Your task to perform on an android device: Open ESPN.com Image 0: 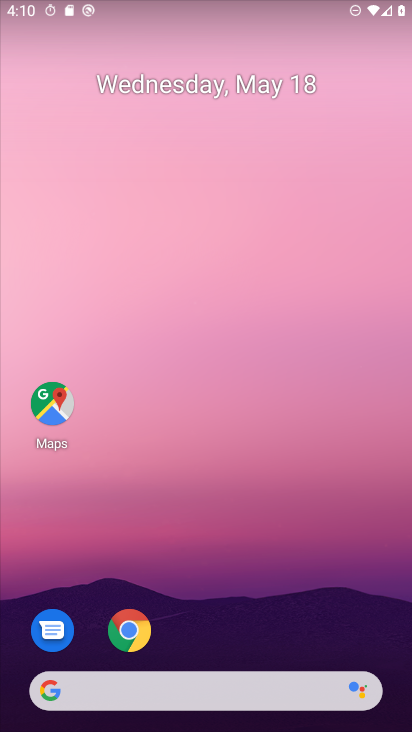
Step 0: press home button
Your task to perform on an android device: Open ESPN.com Image 1: 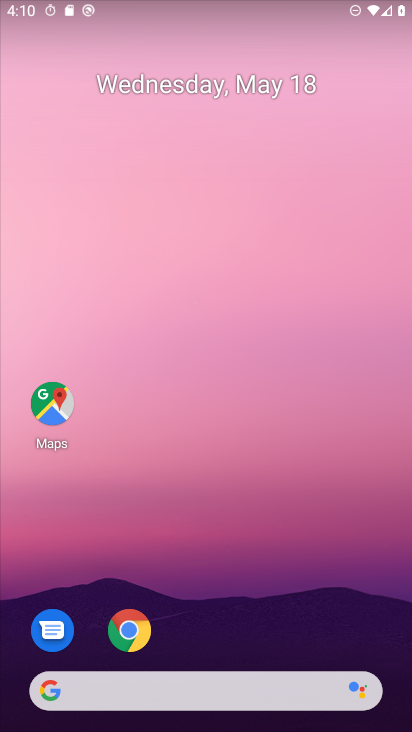
Step 1: click (121, 625)
Your task to perform on an android device: Open ESPN.com Image 2: 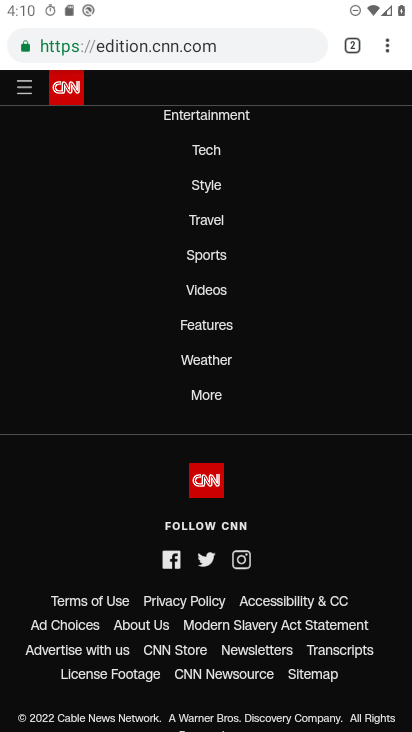
Step 2: click (351, 41)
Your task to perform on an android device: Open ESPN.com Image 3: 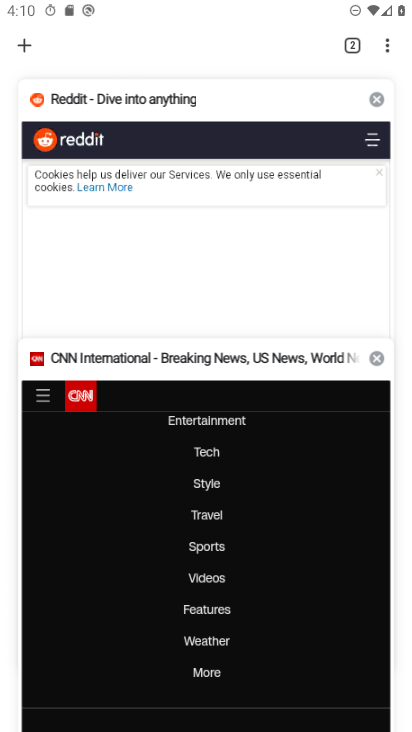
Step 3: click (379, 93)
Your task to perform on an android device: Open ESPN.com Image 4: 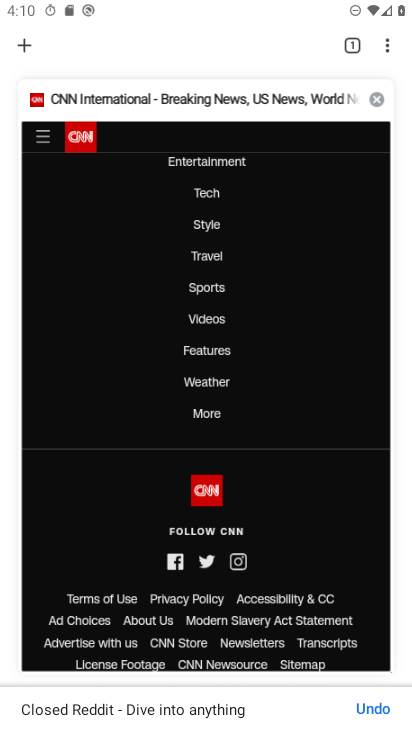
Step 4: click (379, 93)
Your task to perform on an android device: Open ESPN.com Image 5: 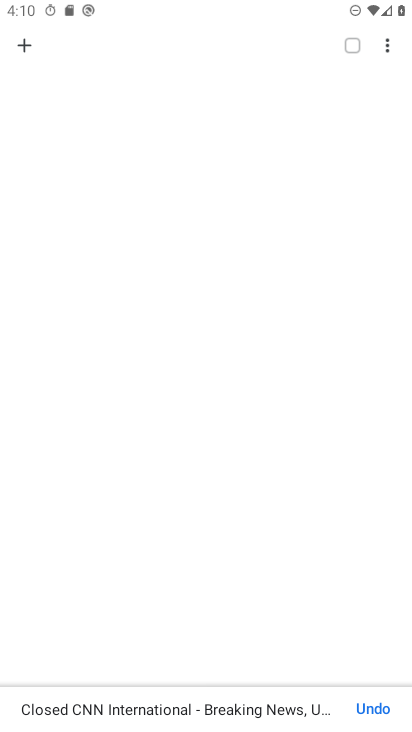
Step 5: click (29, 37)
Your task to perform on an android device: Open ESPN.com Image 6: 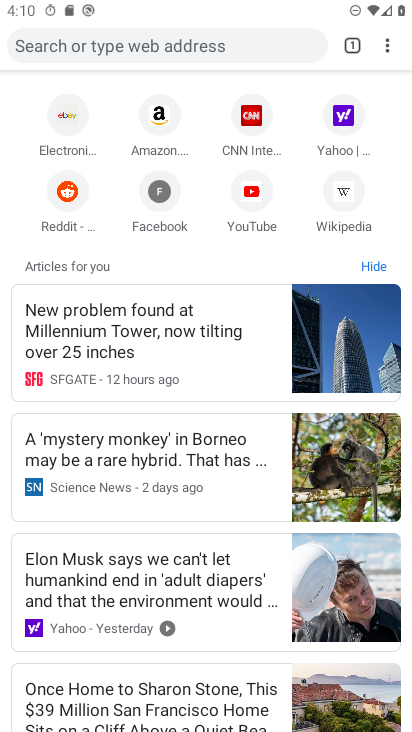
Step 6: click (143, 44)
Your task to perform on an android device: Open ESPN.com Image 7: 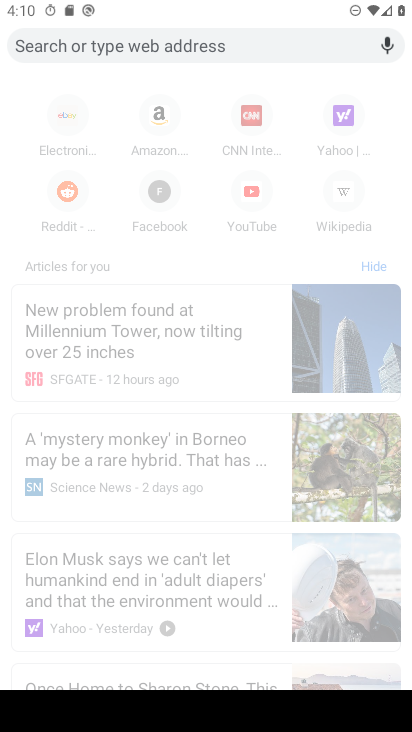
Step 7: type "espn"
Your task to perform on an android device: Open ESPN.com Image 8: 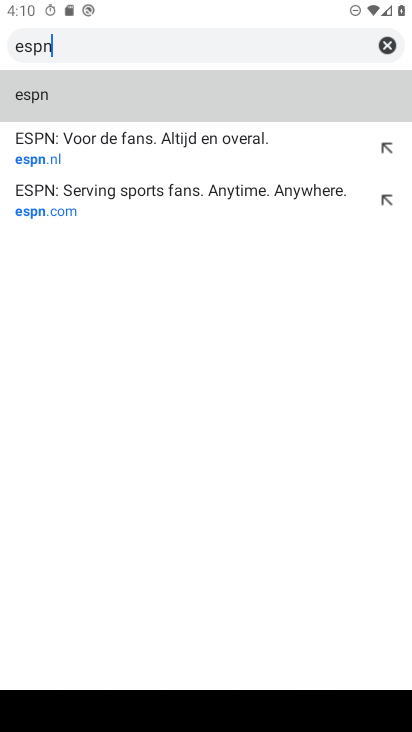
Step 8: click (92, 192)
Your task to perform on an android device: Open ESPN.com Image 9: 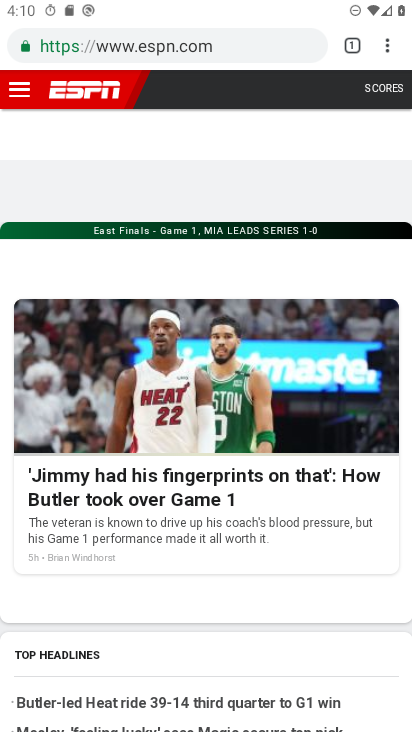
Step 9: drag from (216, 602) to (242, 326)
Your task to perform on an android device: Open ESPN.com Image 10: 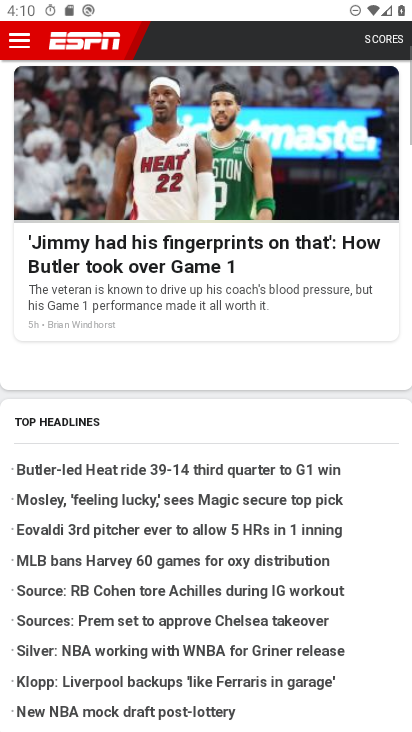
Step 10: click (255, 281)
Your task to perform on an android device: Open ESPN.com Image 11: 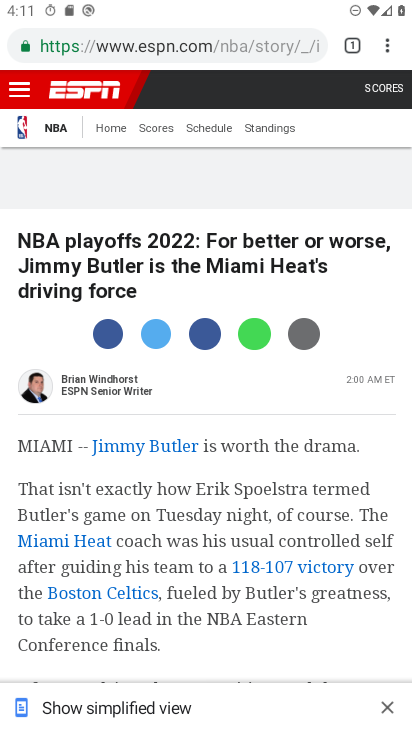
Step 11: task complete